Your task to perform on an android device: Open accessibility settings Image 0: 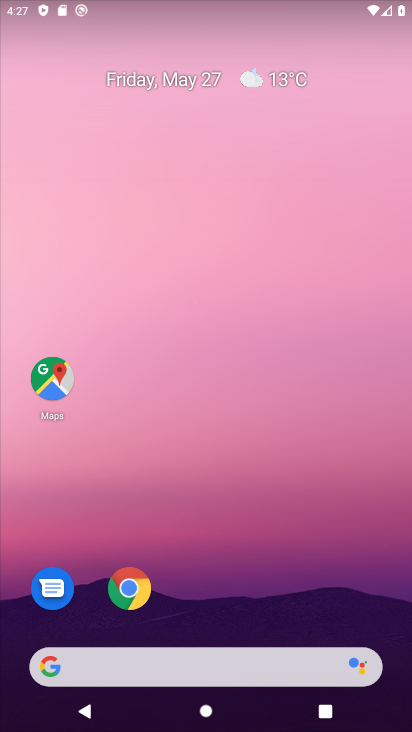
Step 0: drag from (234, 627) to (265, 138)
Your task to perform on an android device: Open accessibility settings Image 1: 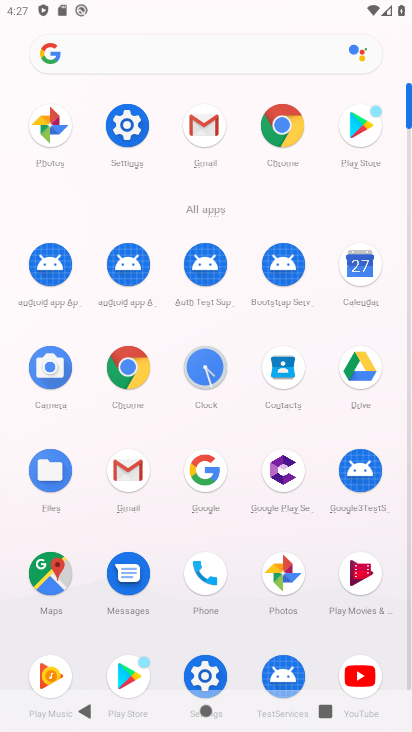
Step 1: click (117, 121)
Your task to perform on an android device: Open accessibility settings Image 2: 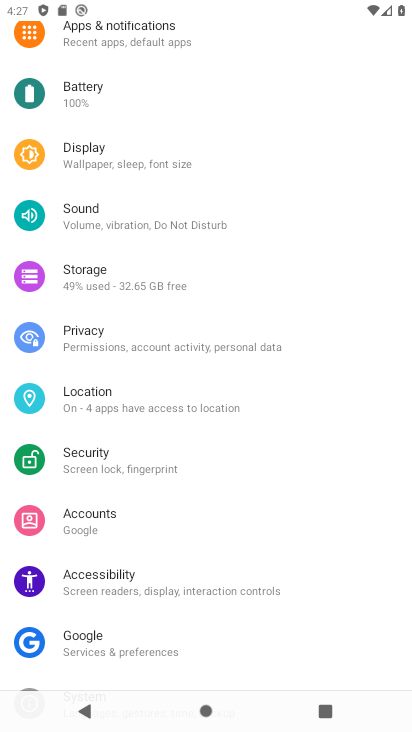
Step 2: click (130, 590)
Your task to perform on an android device: Open accessibility settings Image 3: 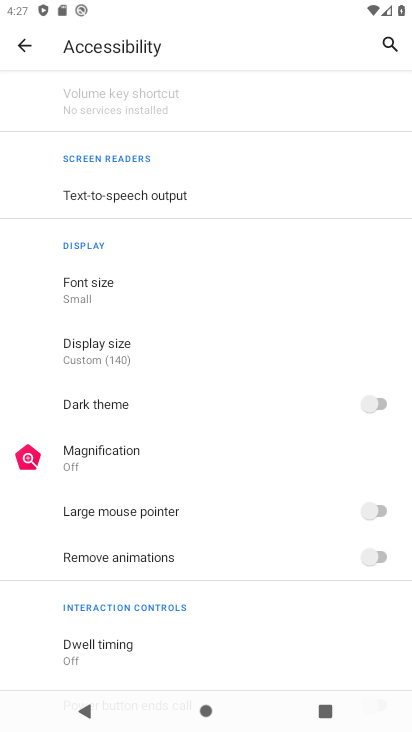
Step 3: task complete